Your task to perform on an android device: Go to privacy settings Image 0: 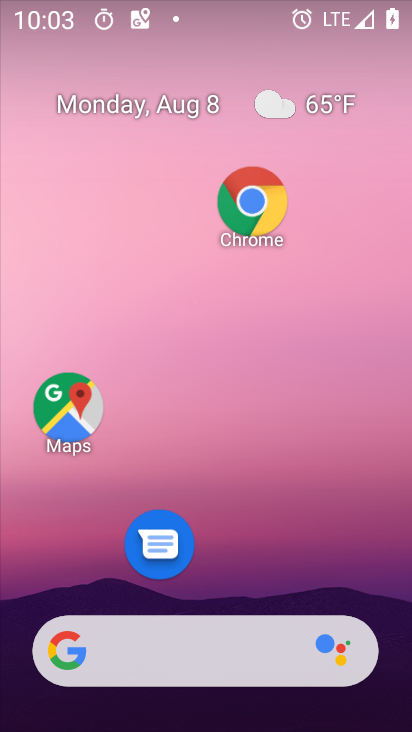
Step 0: drag from (226, 580) to (220, 33)
Your task to perform on an android device: Go to privacy settings Image 1: 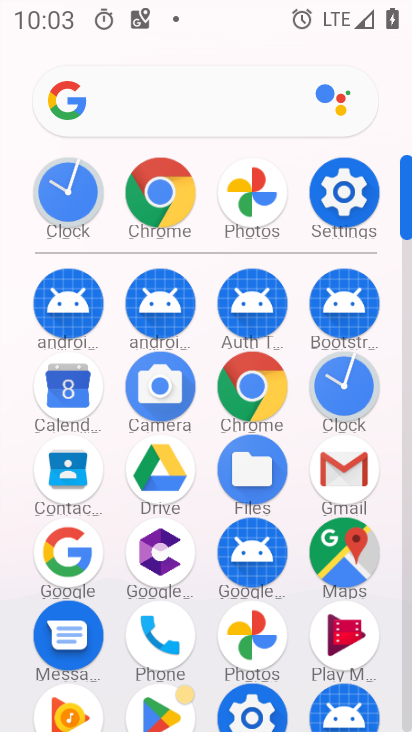
Step 1: click (340, 185)
Your task to perform on an android device: Go to privacy settings Image 2: 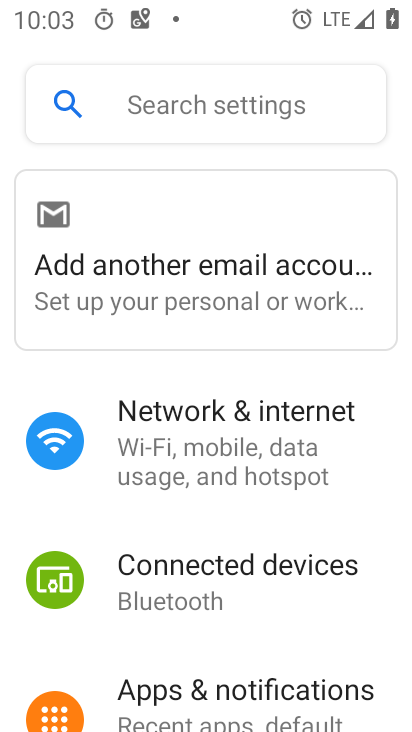
Step 2: drag from (224, 650) to (242, 152)
Your task to perform on an android device: Go to privacy settings Image 3: 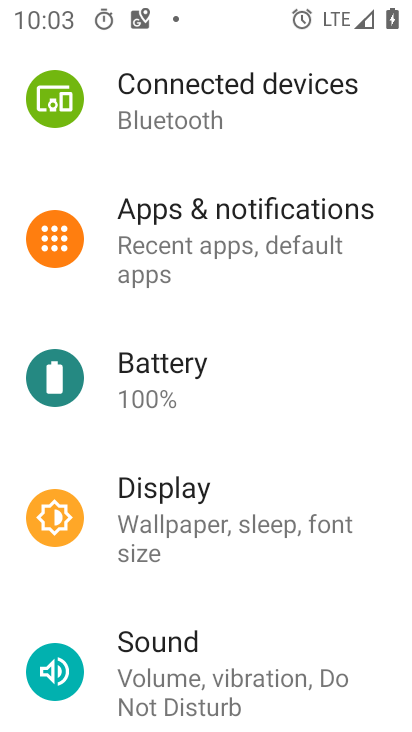
Step 3: drag from (243, 659) to (232, 206)
Your task to perform on an android device: Go to privacy settings Image 4: 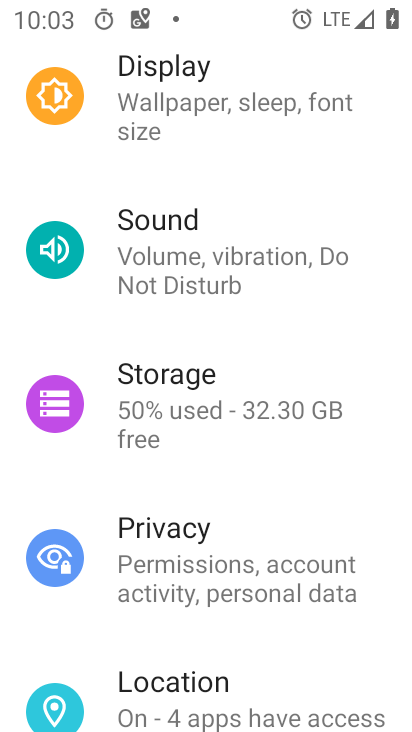
Step 4: click (162, 563)
Your task to perform on an android device: Go to privacy settings Image 5: 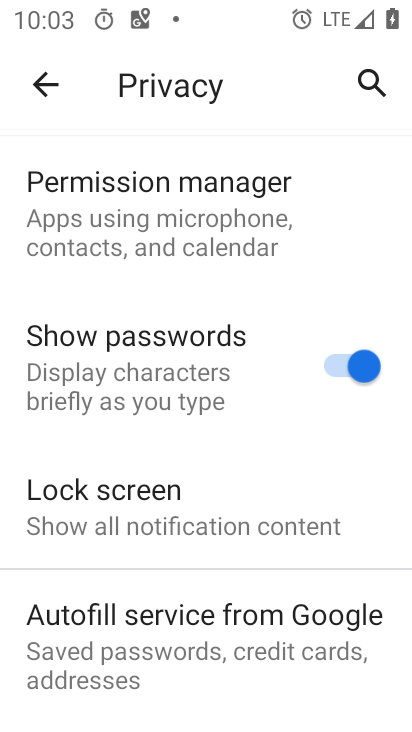
Step 5: drag from (208, 594) to (238, 185)
Your task to perform on an android device: Go to privacy settings Image 6: 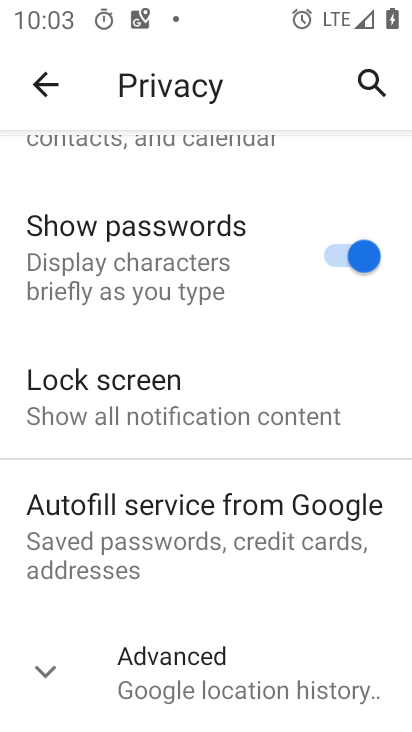
Step 6: click (38, 661)
Your task to perform on an android device: Go to privacy settings Image 7: 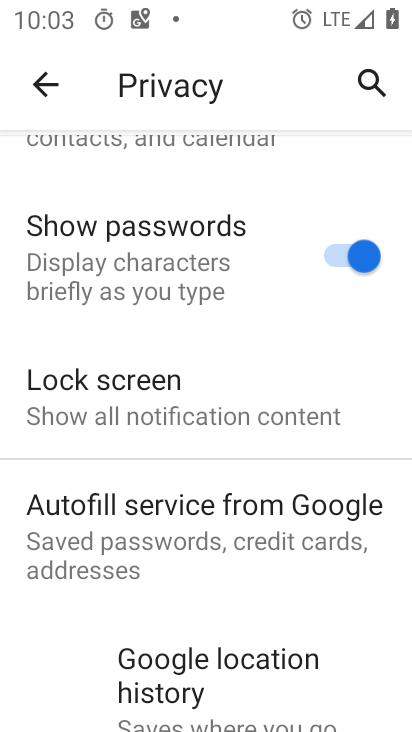
Step 7: task complete